Your task to perform on an android device: refresh tabs in the chrome app Image 0: 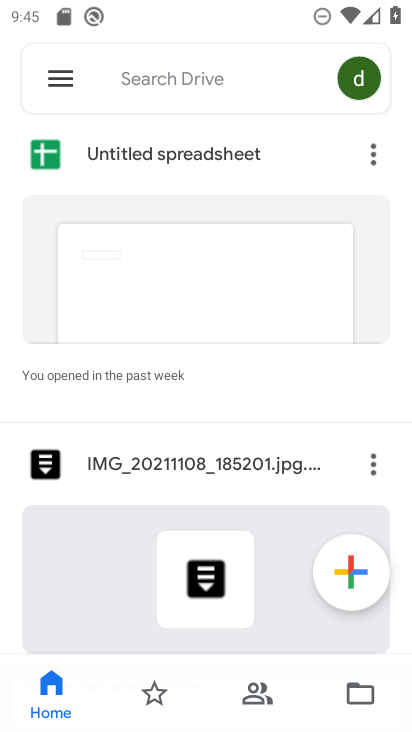
Step 0: press home button
Your task to perform on an android device: refresh tabs in the chrome app Image 1: 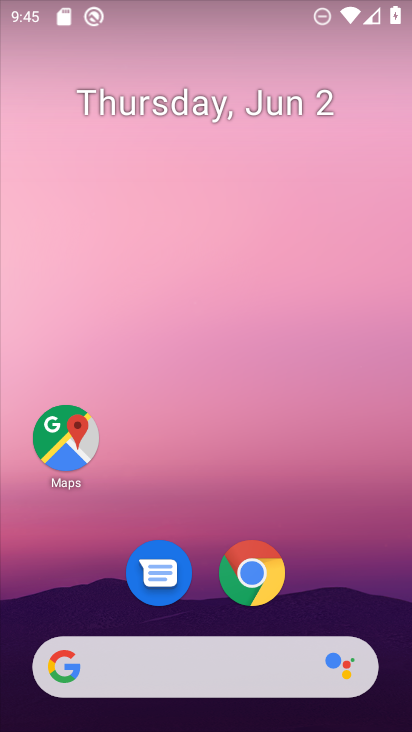
Step 1: click (252, 575)
Your task to perform on an android device: refresh tabs in the chrome app Image 2: 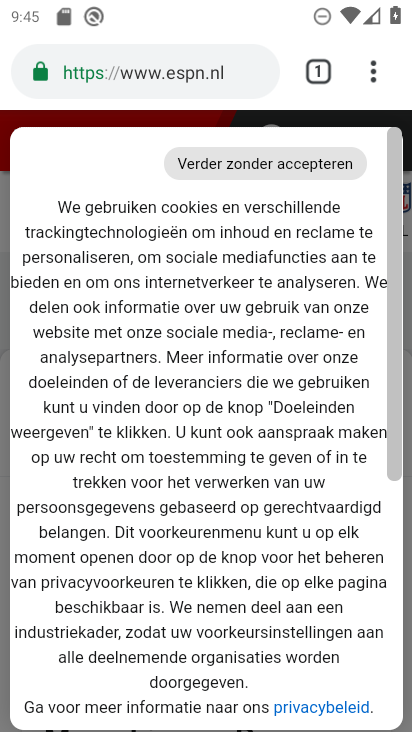
Step 2: click (367, 67)
Your task to perform on an android device: refresh tabs in the chrome app Image 3: 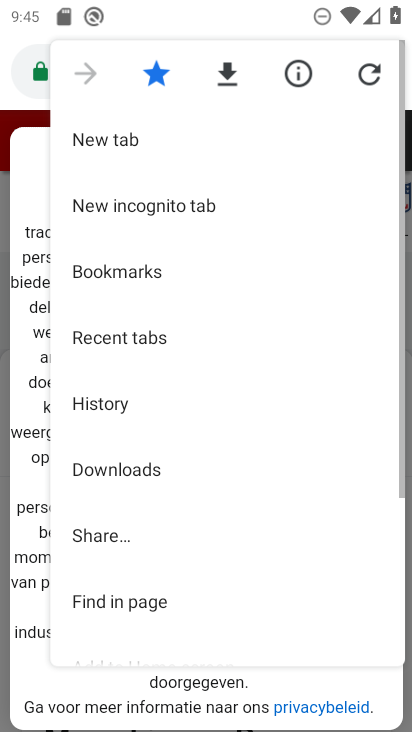
Step 3: click (359, 77)
Your task to perform on an android device: refresh tabs in the chrome app Image 4: 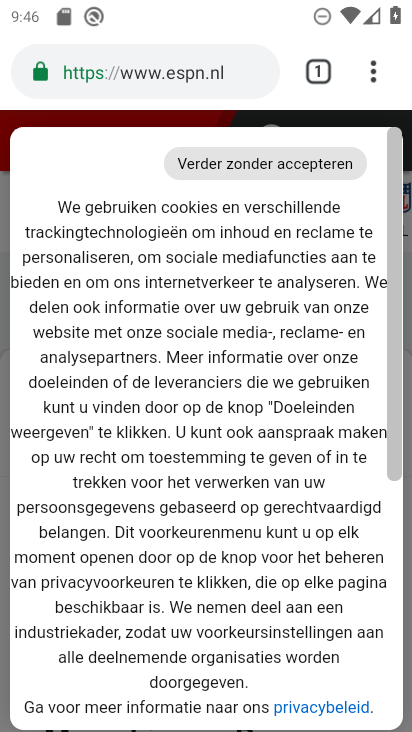
Step 4: task complete